Your task to perform on an android device: turn on the 24-hour format for clock Image 0: 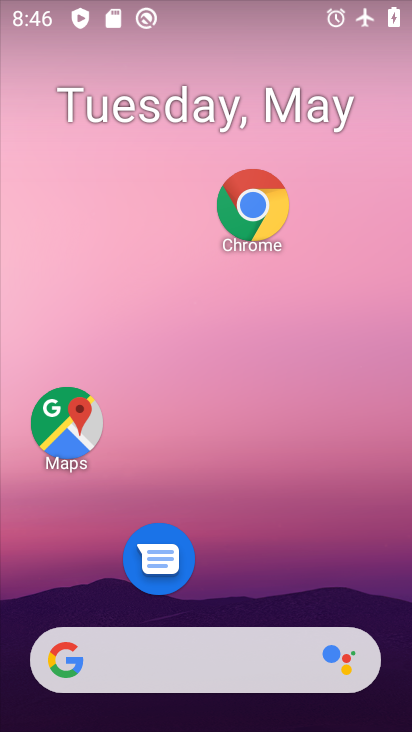
Step 0: drag from (224, 588) to (232, 248)
Your task to perform on an android device: turn on the 24-hour format for clock Image 1: 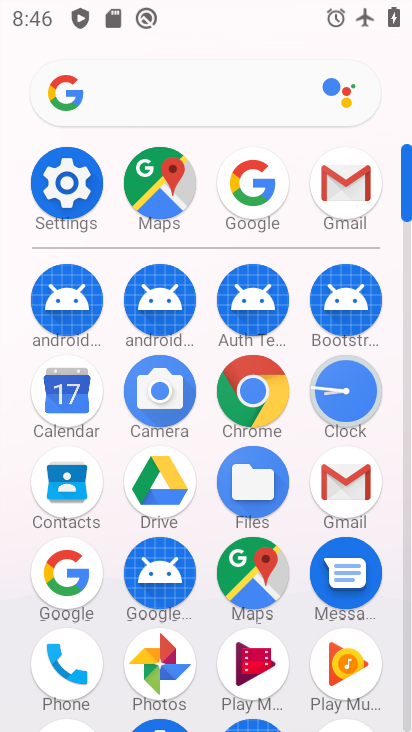
Step 1: click (349, 403)
Your task to perform on an android device: turn on the 24-hour format for clock Image 2: 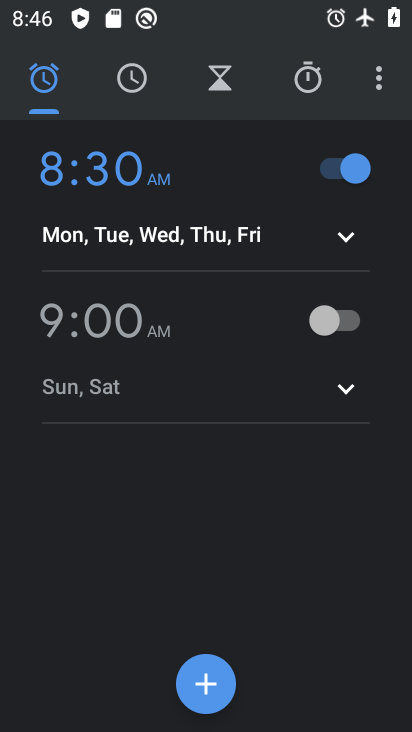
Step 2: click (380, 79)
Your task to perform on an android device: turn on the 24-hour format for clock Image 3: 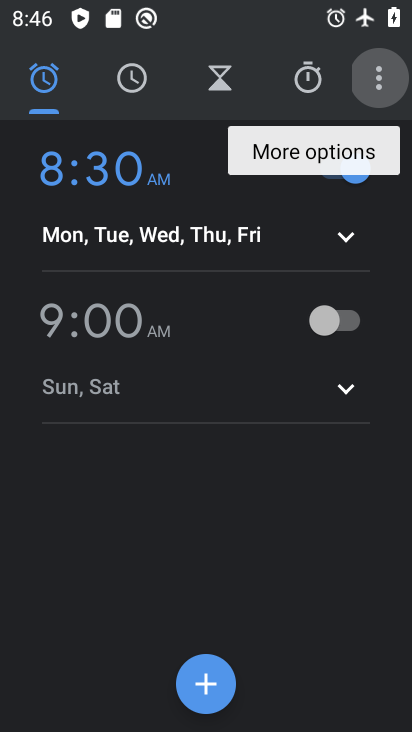
Step 3: click (374, 86)
Your task to perform on an android device: turn on the 24-hour format for clock Image 4: 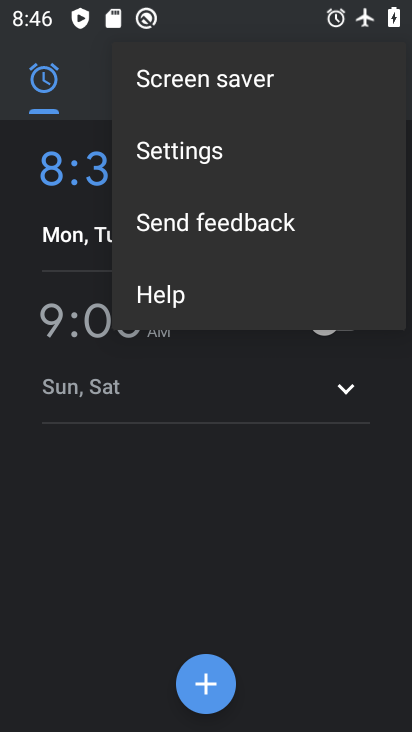
Step 4: click (198, 163)
Your task to perform on an android device: turn on the 24-hour format for clock Image 5: 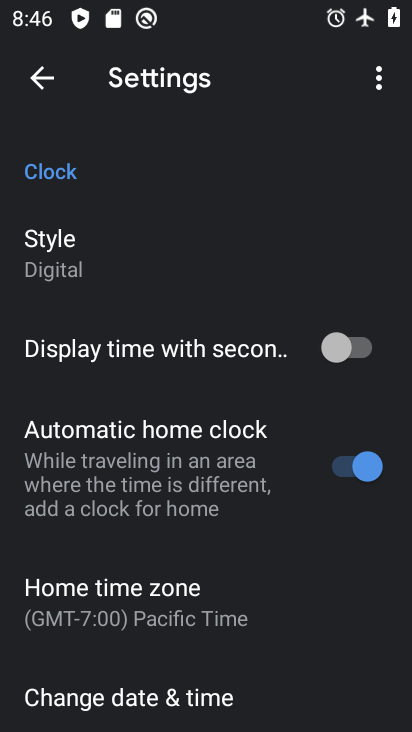
Step 5: click (222, 686)
Your task to perform on an android device: turn on the 24-hour format for clock Image 6: 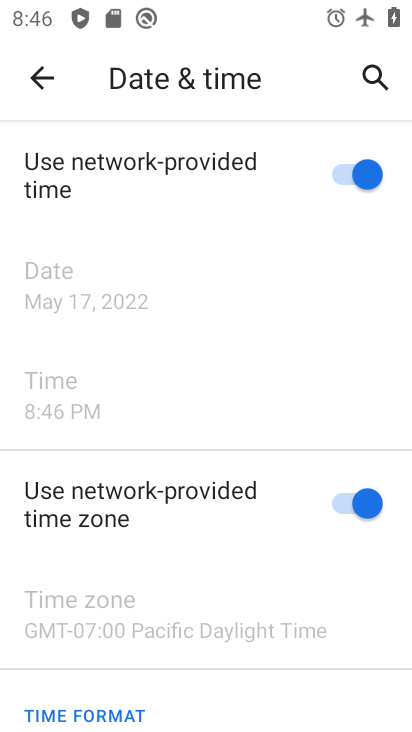
Step 6: drag from (224, 619) to (233, 393)
Your task to perform on an android device: turn on the 24-hour format for clock Image 7: 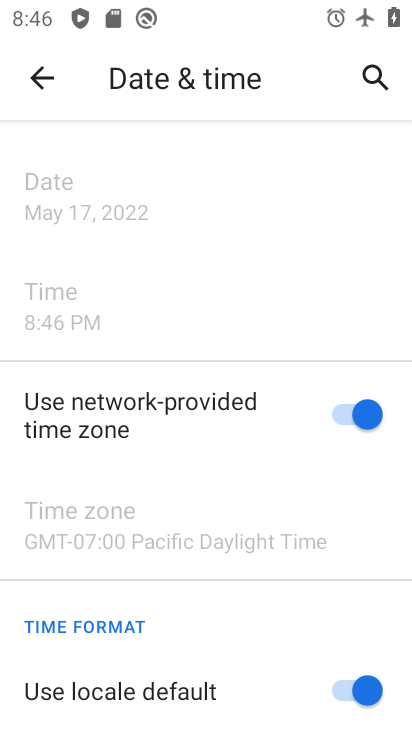
Step 7: drag from (241, 653) to (252, 363)
Your task to perform on an android device: turn on the 24-hour format for clock Image 8: 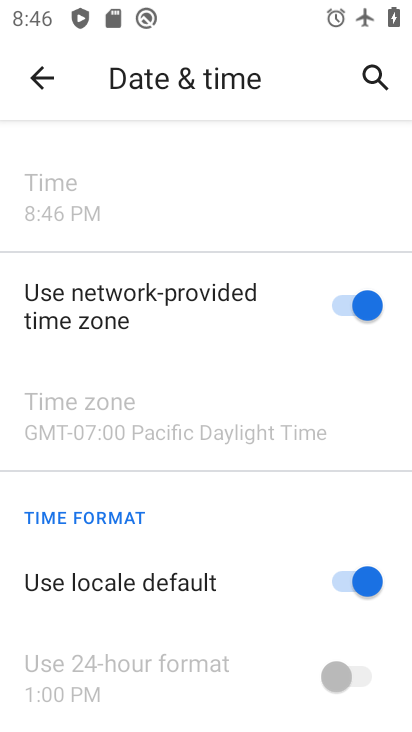
Step 8: click (349, 578)
Your task to perform on an android device: turn on the 24-hour format for clock Image 9: 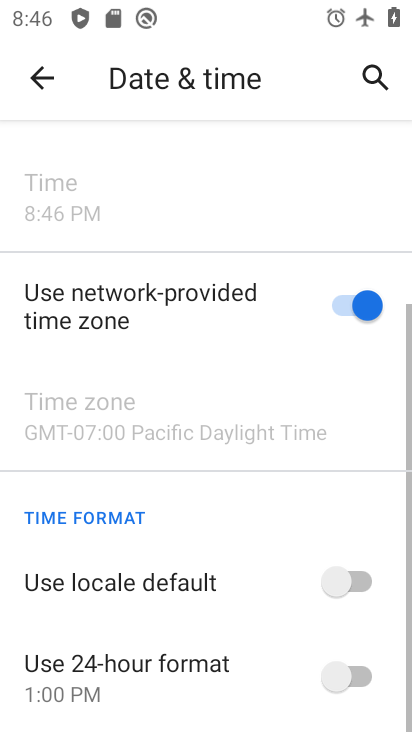
Step 9: click (353, 669)
Your task to perform on an android device: turn on the 24-hour format for clock Image 10: 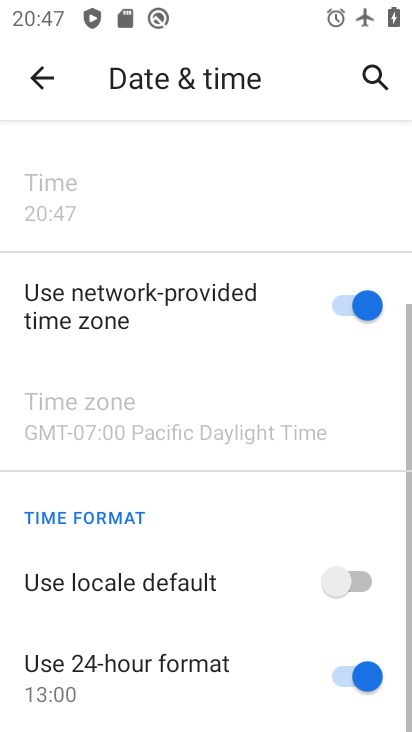
Step 10: task complete